Your task to perform on an android device: stop showing notifications on the lock screen Image 0: 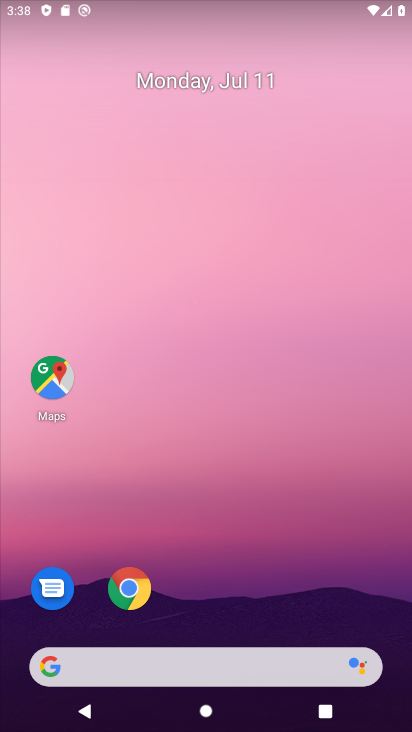
Step 0: press home button
Your task to perform on an android device: stop showing notifications on the lock screen Image 1: 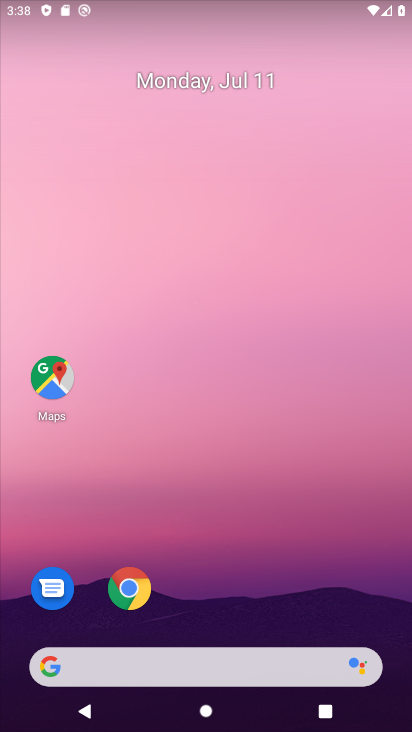
Step 1: drag from (232, 624) to (208, 116)
Your task to perform on an android device: stop showing notifications on the lock screen Image 2: 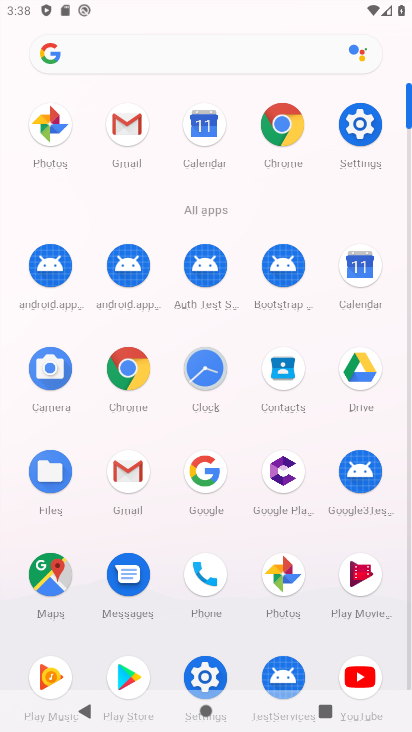
Step 2: click (359, 118)
Your task to perform on an android device: stop showing notifications on the lock screen Image 3: 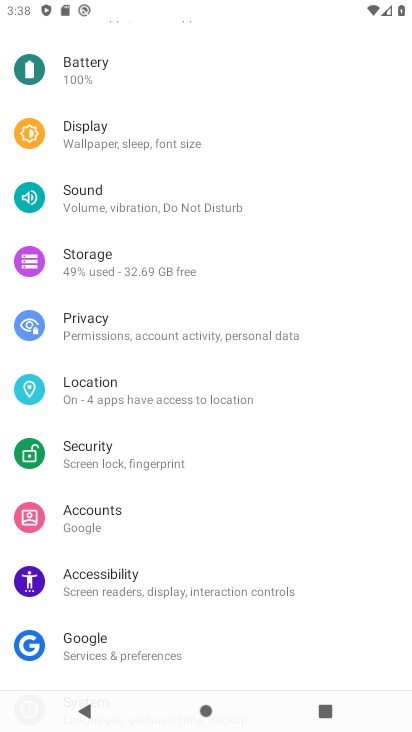
Step 3: drag from (190, 102) to (208, 695)
Your task to perform on an android device: stop showing notifications on the lock screen Image 4: 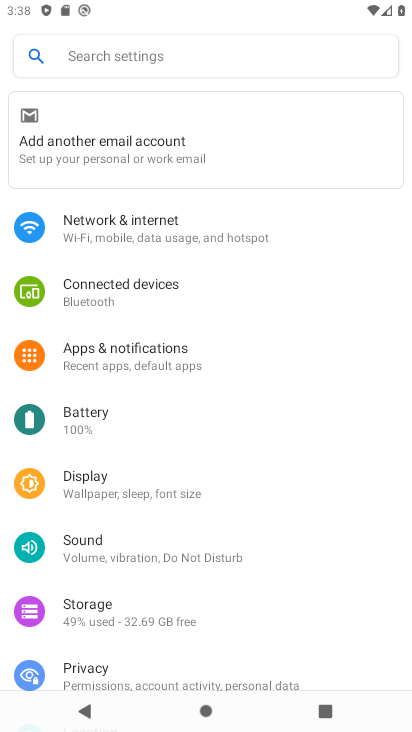
Step 4: click (123, 354)
Your task to perform on an android device: stop showing notifications on the lock screen Image 5: 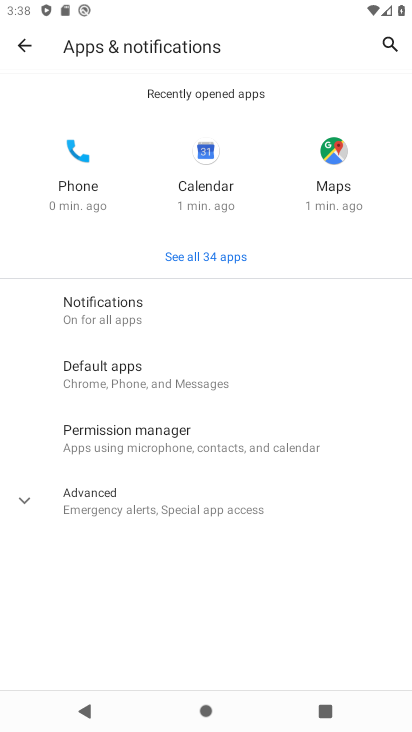
Step 5: click (107, 305)
Your task to perform on an android device: stop showing notifications on the lock screen Image 6: 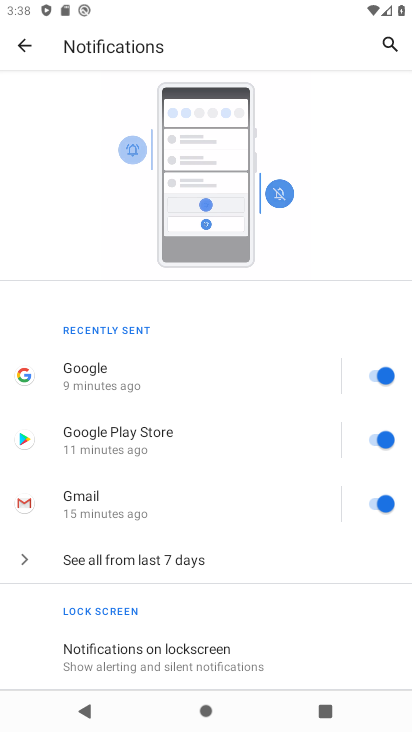
Step 6: click (150, 651)
Your task to perform on an android device: stop showing notifications on the lock screen Image 7: 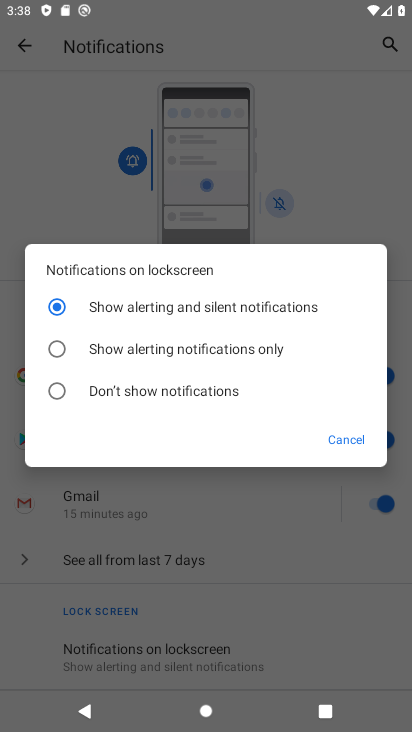
Step 7: click (55, 399)
Your task to perform on an android device: stop showing notifications on the lock screen Image 8: 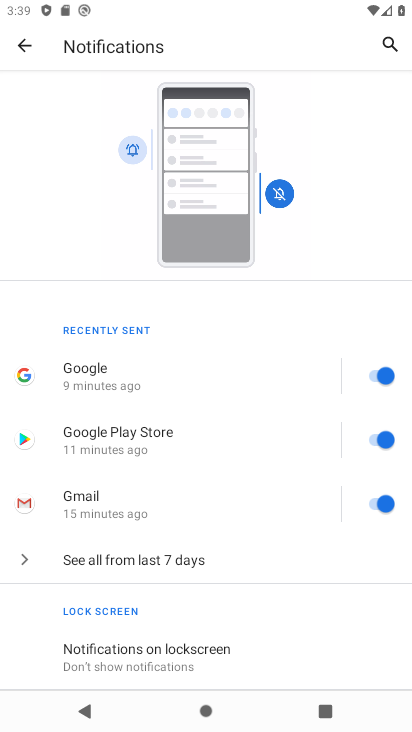
Step 8: task complete